Your task to perform on an android device: remove spam from my inbox in the gmail app Image 0: 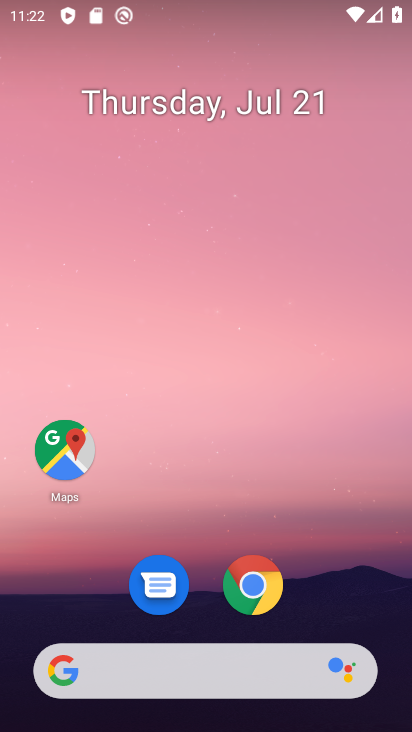
Step 0: drag from (166, 640) to (301, 82)
Your task to perform on an android device: remove spam from my inbox in the gmail app Image 1: 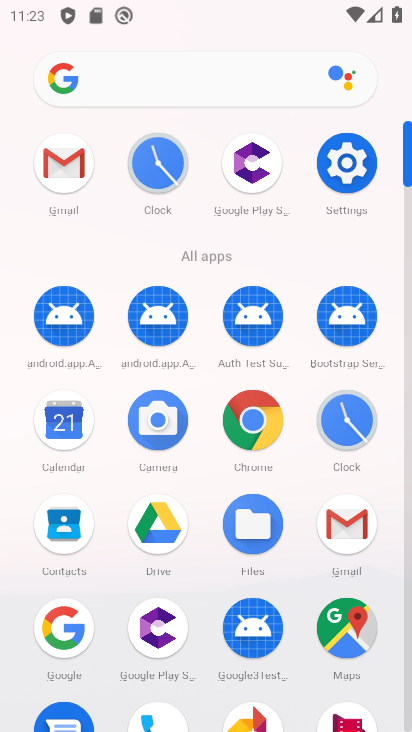
Step 1: click (56, 169)
Your task to perform on an android device: remove spam from my inbox in the gmail app Image 2: 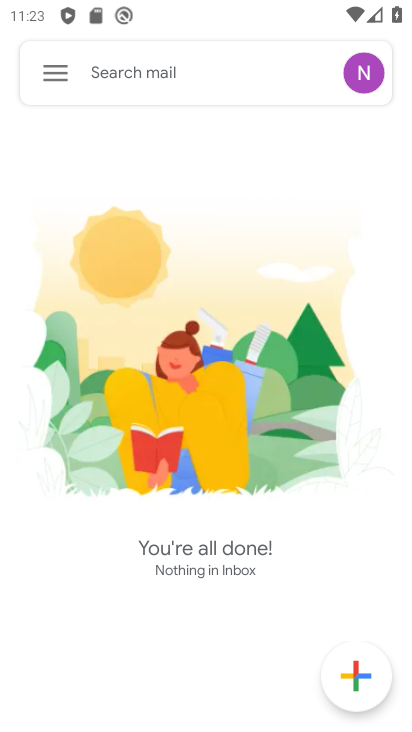
Step 2: click (46, 68)
Your task to perform on an android device: remove spam from my inbox in the gmail app Image 3: 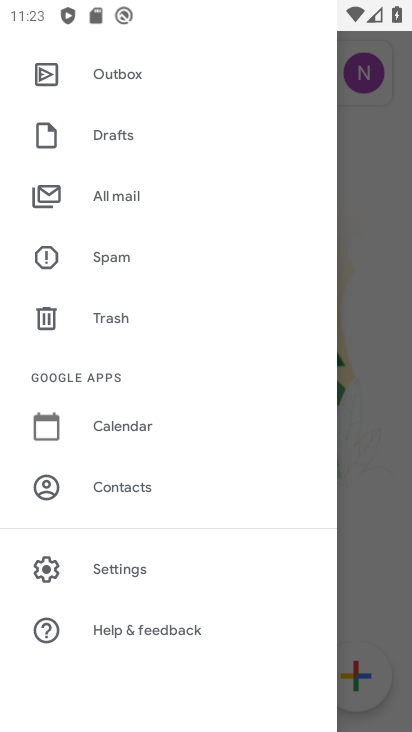
Step 3: click (120, 258)
Your task to perform on an android device: remove spam from my inbox in the gmail app Image 4: 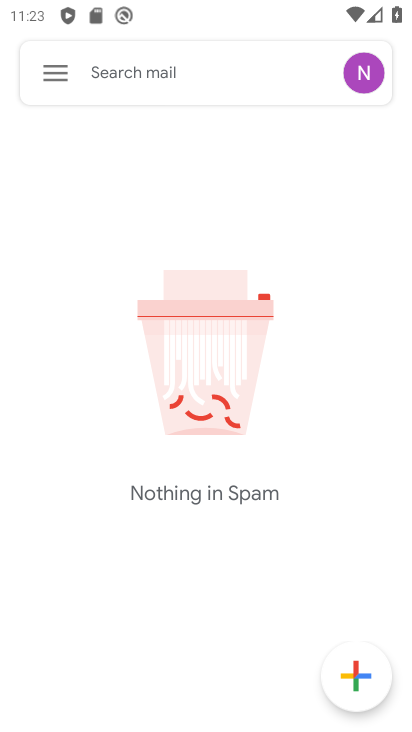
Step 4: task complete